Your task to perform on an android device: turn vacation reply on in the gmail app Image 0: 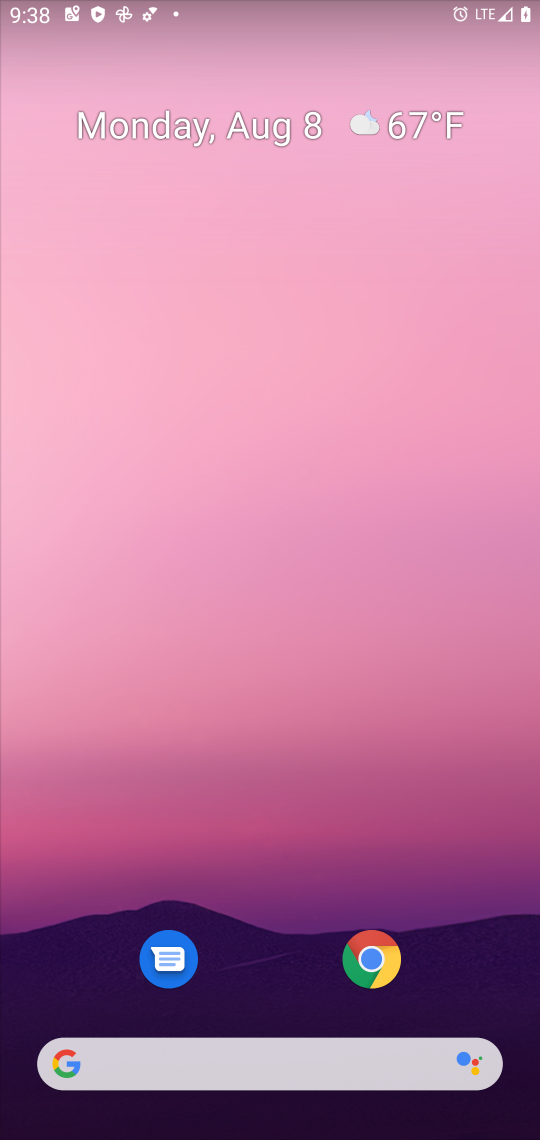
Step 0: drag from (495, 987) to (177, 82)
Your task to perform on an android device: turn vacation reply on in the gmail app Image 1: 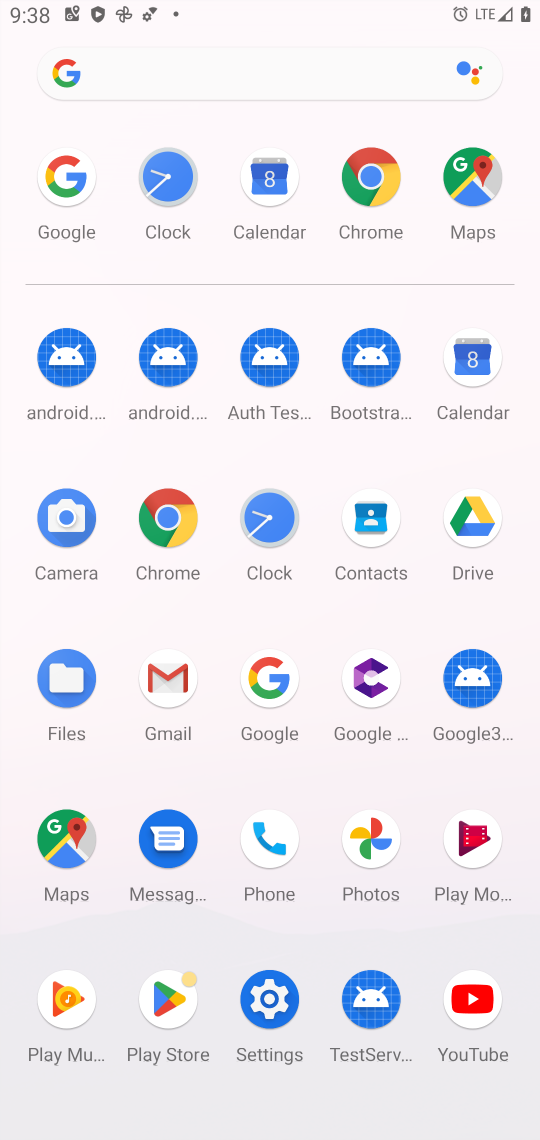
Step 1: click (178, 690)
Your task to perform on an android device: turn vacation reply on in the gmail app Image 2: 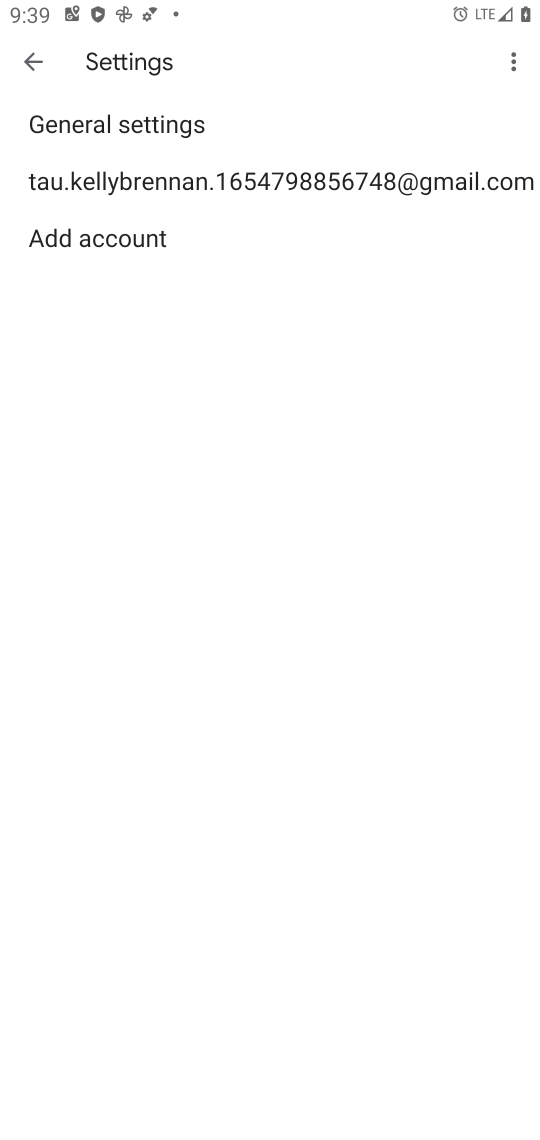
Step 2: click (240, 163)
Your task to perform on an android device: turn vacation reply on in the gmail app Image 3: 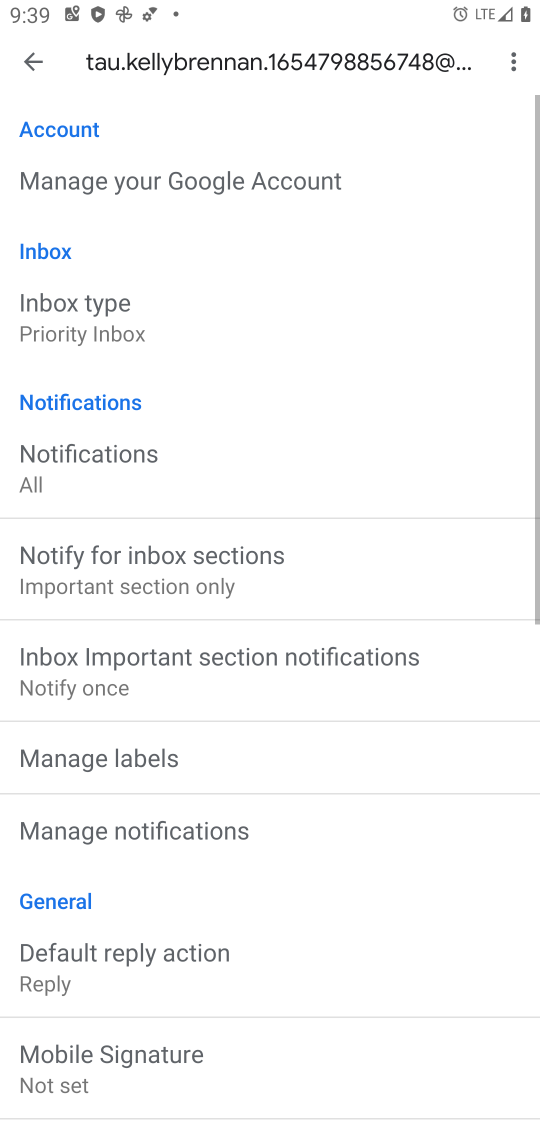
Step 3: drag from (308, 1043) to (403, 89)
Your task to perform on an android device: turn vacation reply on in the gmail app Image 4: 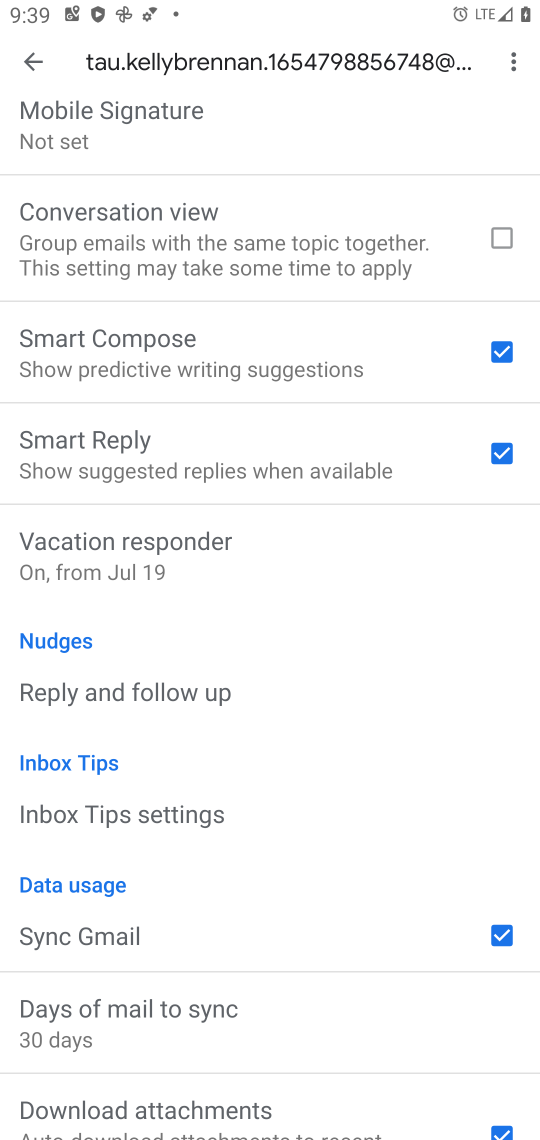
Step 4: drag from (214, 1065) to (340, 305)
Your task to perform on an android device: turn vacation reply on in the gmail app Image 5: 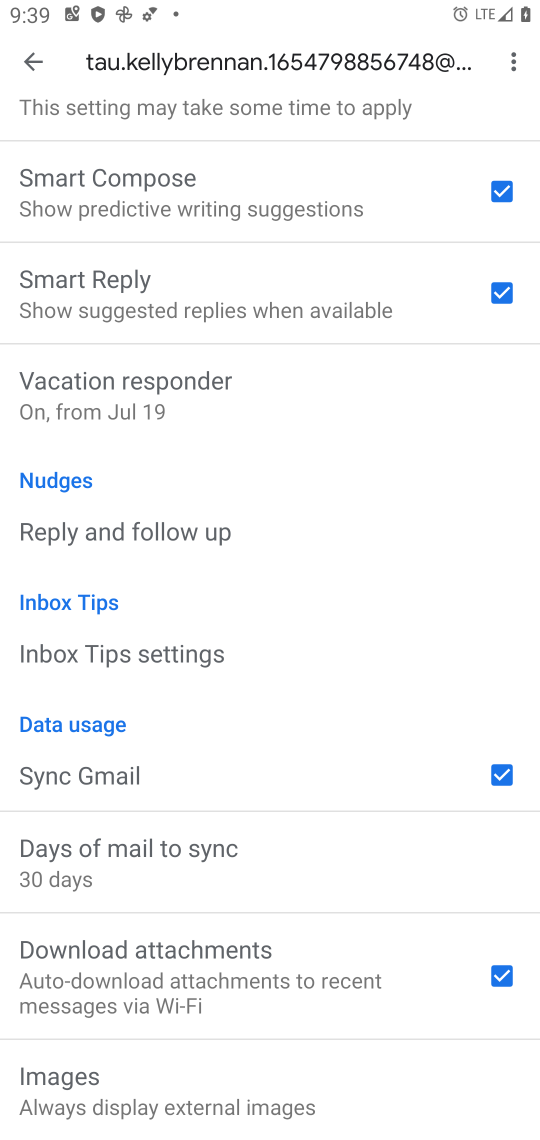
Step 5: click (94, 387)
Your task to perform on an android device: turn vacation reply on in the gmail app Image 6: 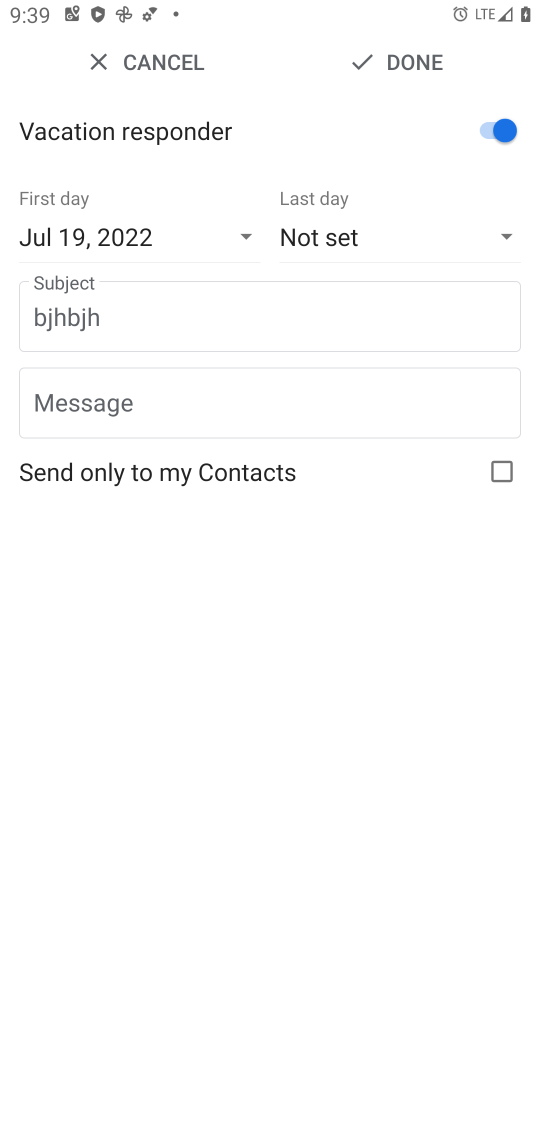
Step 6: task complete